Your task to perform on an android device: toggle wifi Image 0: 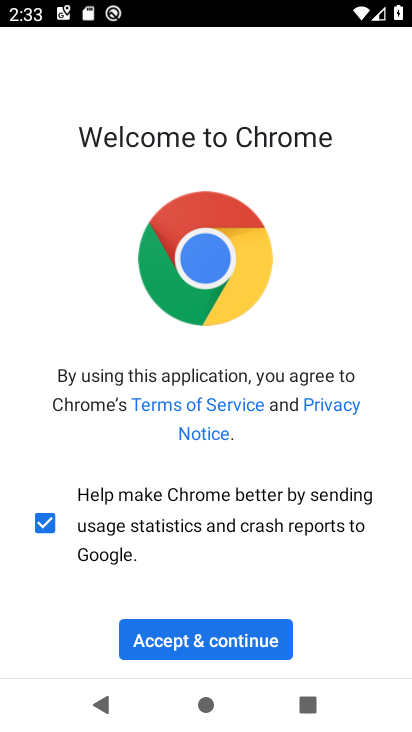
Step 0: press home button
Your task to perform on an android device: toggle wifi Image 1: 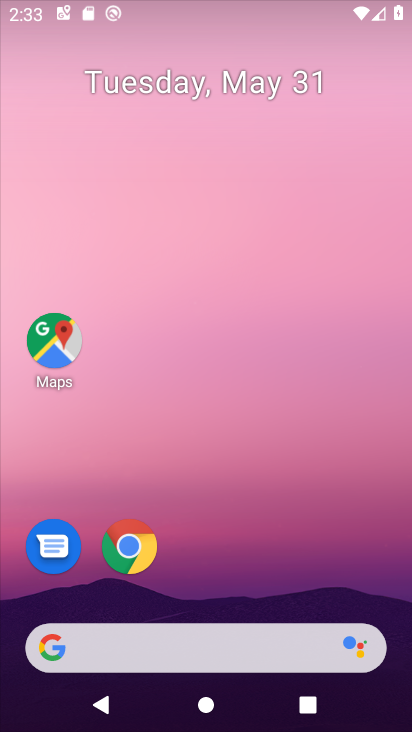
Step 1: drag from (319, 464) to (217, 47)
Your task to perform on an android device: toggle wifi Image 2: 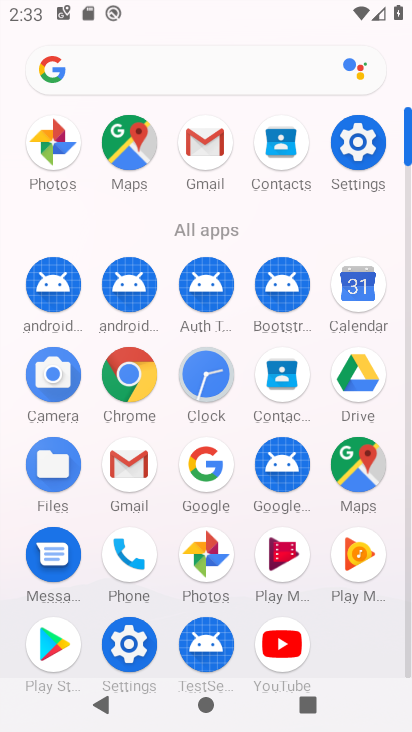
Step 2: click (369, 149)
Your task to perform on an android device: toggle wifi Image 3: 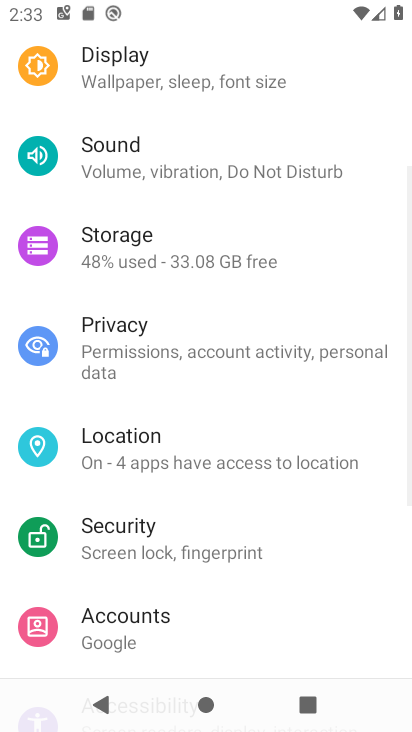
Step 3: drag from (274, 95) to (256, 625)
Your task to perform on an android device: toggle wifi Image 4: 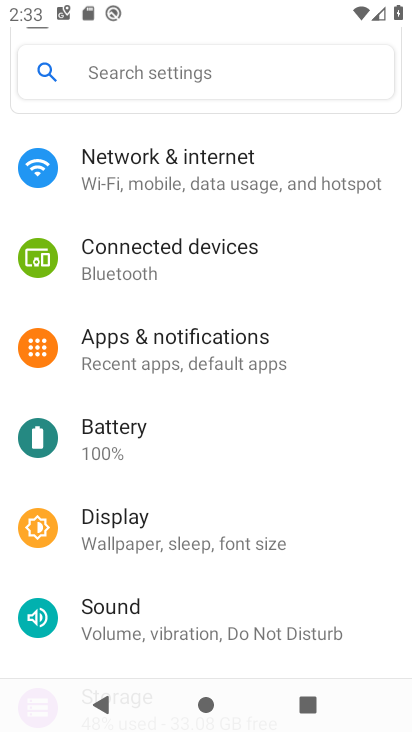
Step 4: click (278, 168)
Your task to perform on an android device: toggle wifi Image 5: 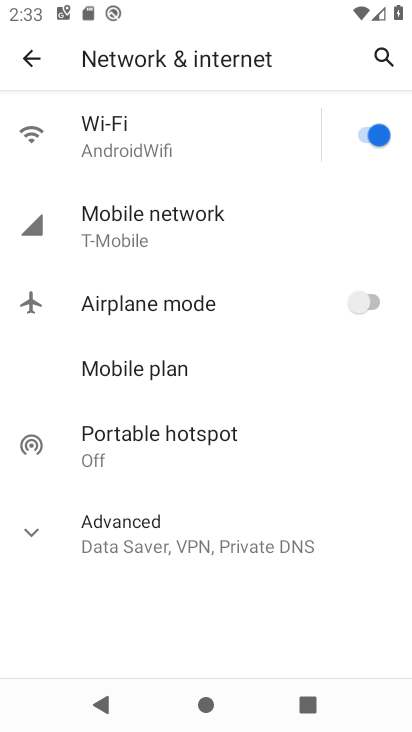
Step 5: click (189, 140)
Your task to perform on an android device: toggle wifi Image 6: 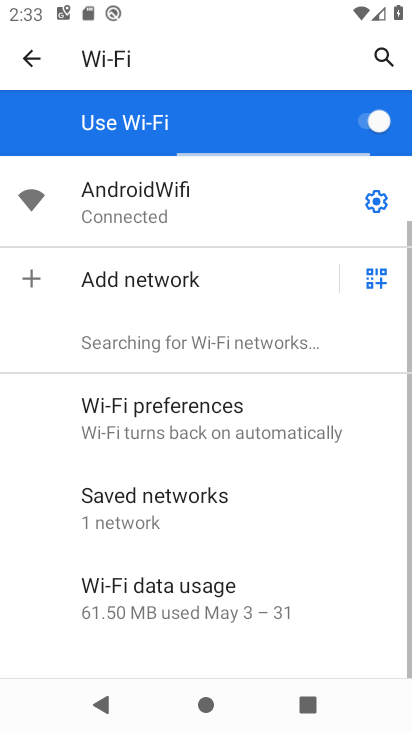
Step 6: click (373, 116)
Your task to perform on an android device: toggle wifi Image 7: 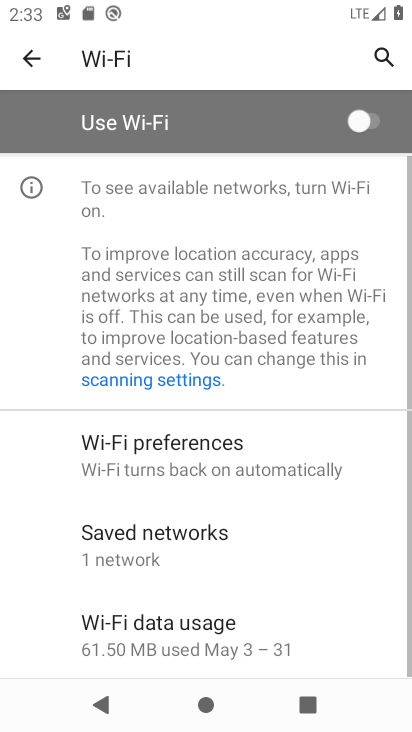
Step 7: task complete